Your task to perform on an android device: Go to eBay Image 0: 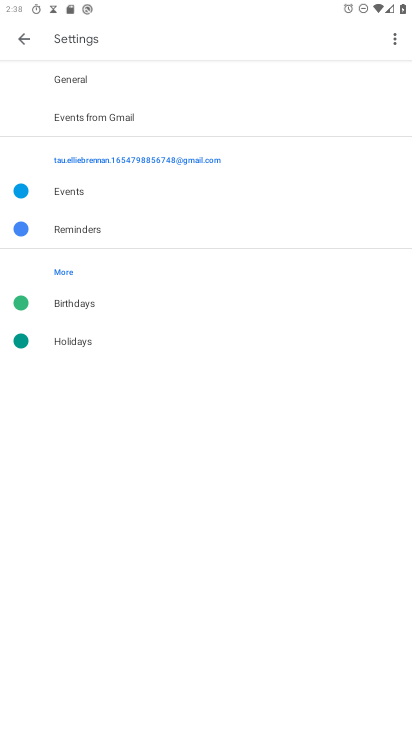
Step 0: press home button
Your task to perform on an android device: Go to eBay Image 1: 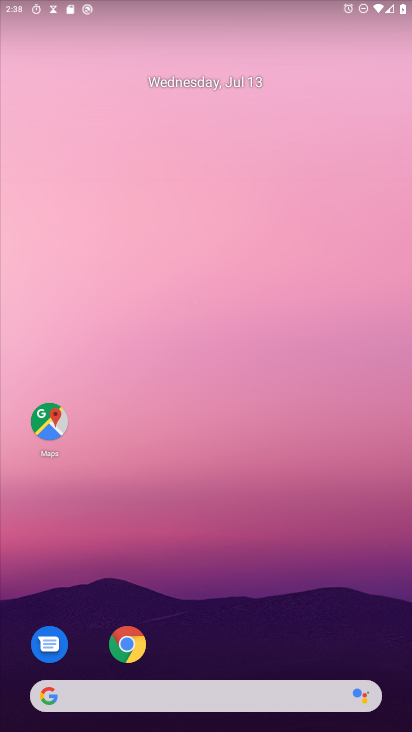
Step 1: click (115, 693)
Your task to perform on an android device: Go to eBay Image 2: 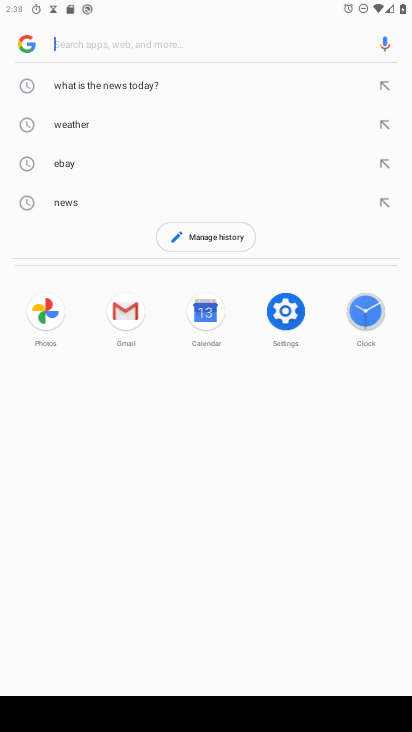
Step 2: type "eBay"
Your task to perform on an android device: Go to eBay Image 3: 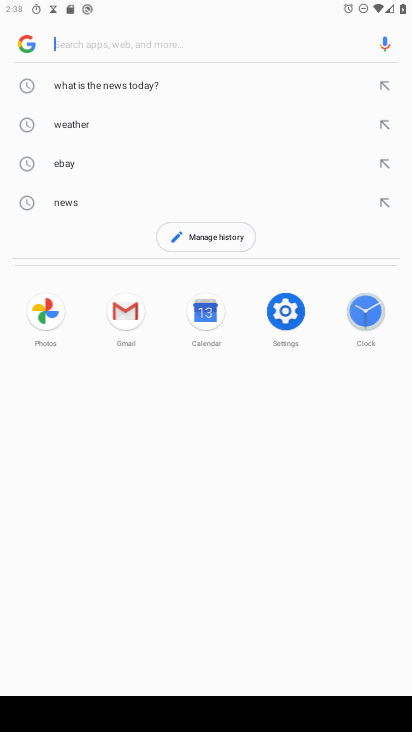
Step 3: click (75, 41)
Your task to perform on an android device: Go to eBay Image 4: 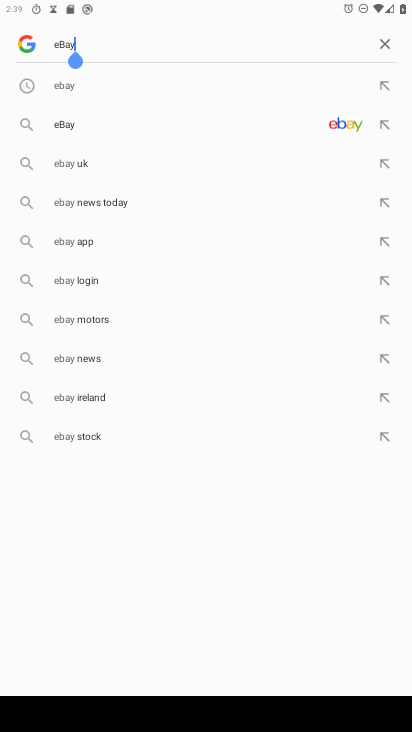
Step 4: press enter
Your task to perform on an android device: Go to eBay Image 5: 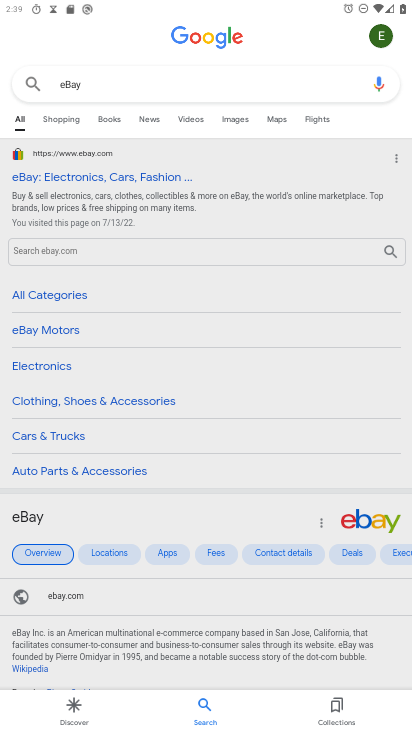
Step 5: click (36, 151)
Your task to perform on an android device: Go to eBay Image 6: 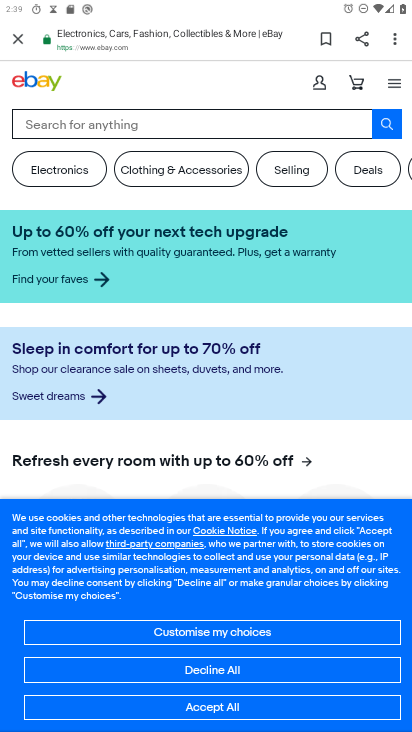
Step 6: task complete